Your task to perform on an android device: move a message to another label in the gmail app Image 0: 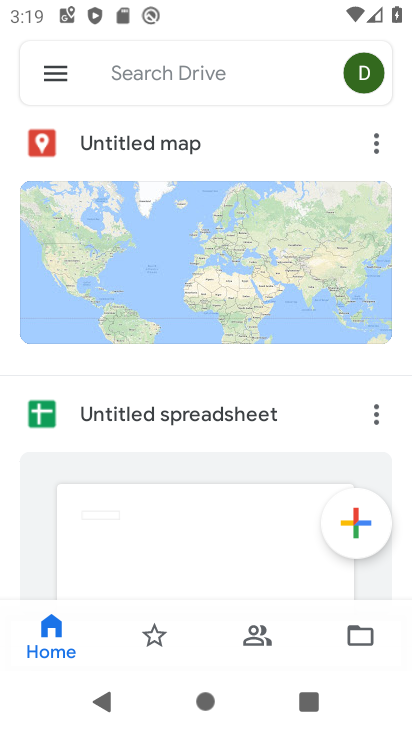
Step 0: press home button
Your task to perform on an android device: move a message to another label in the gmail app Image 1: 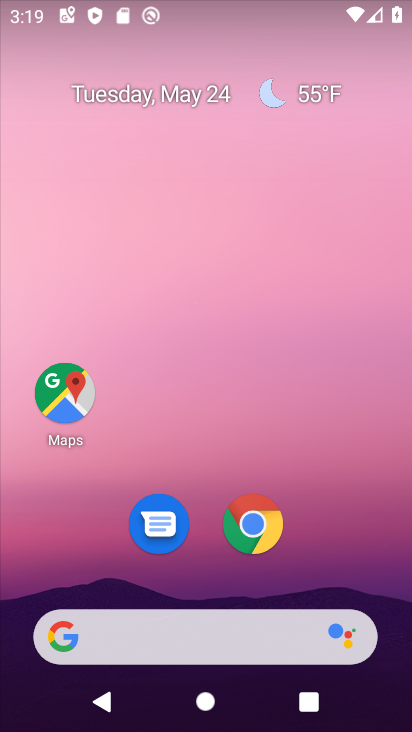
Step 1: drag from (221, 422) to (230, 24)
Your task to perform on an android device: move a message to another label in the gmail app Image 2: 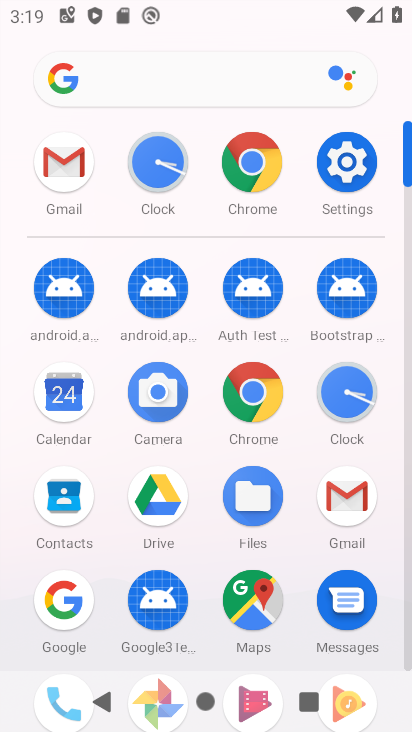
Step 2: click (67, 165)
Your task to perform on an android device: move a message to another label in the gmail app Image 3: 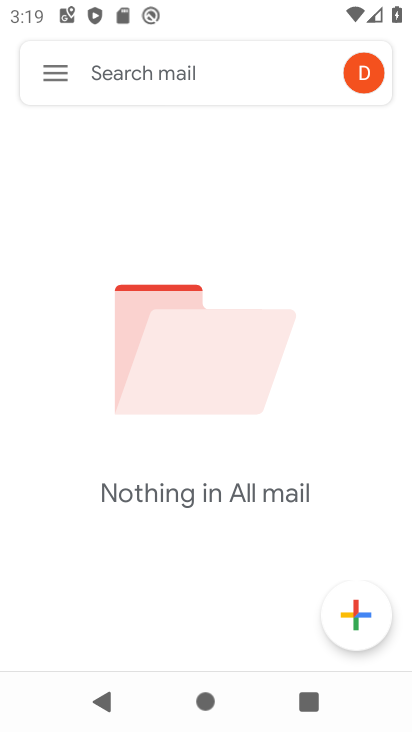
Step 3: task complete